Your task to perform on an android device: open a bookmark in the chrome app Image 0: 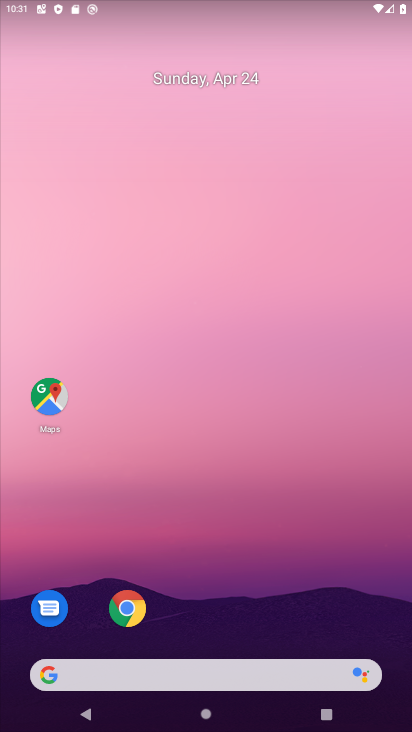
Step 0: drag from (264, 704) to (341, 169)
Your task to perform on an android device: open a bookmark in the chrome app Image 1: 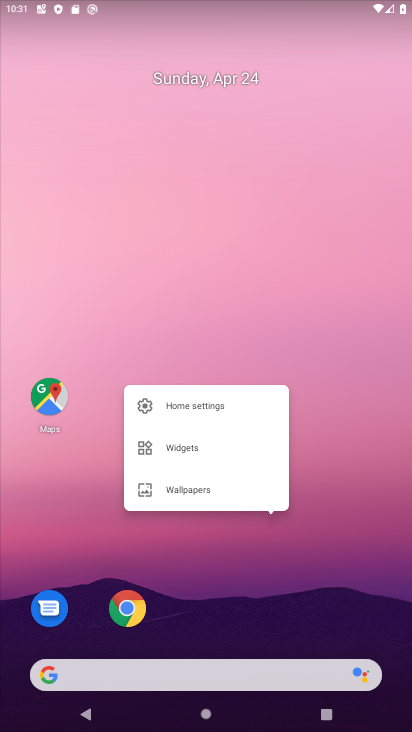
Step 1: click (341, 169)
Your task to perform on an android device: open a bookmark in the chrome app Image 2: 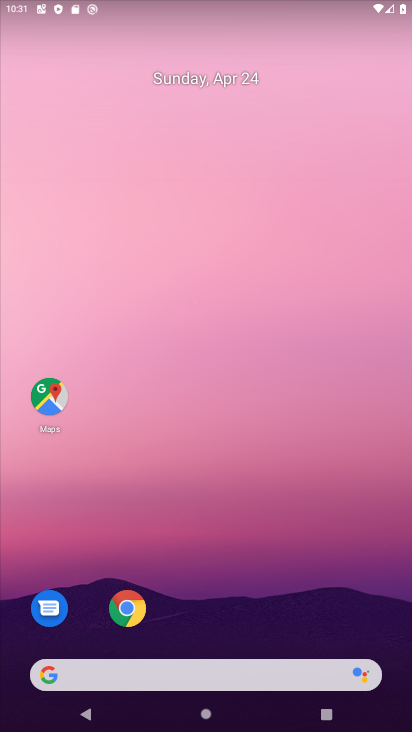
Step 2: drag from (246, 697) to (289, 126)
Your task to perform on an android device: open a bookmark in the chrome app Image 3: 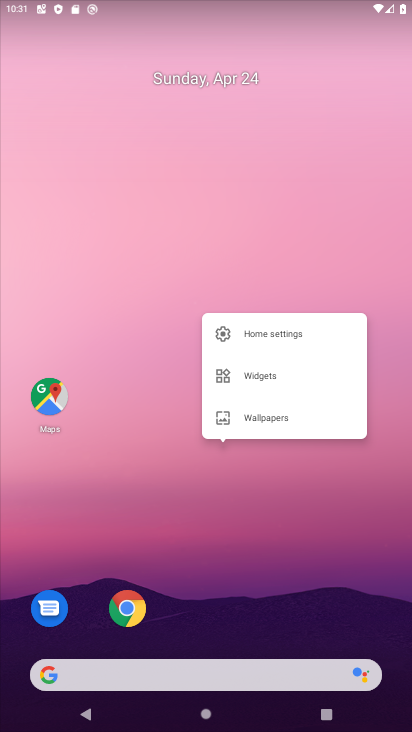
Step 3: click (235, 206)
Your task to perform on an android device: open a bookmark in the chrome app Image 4: 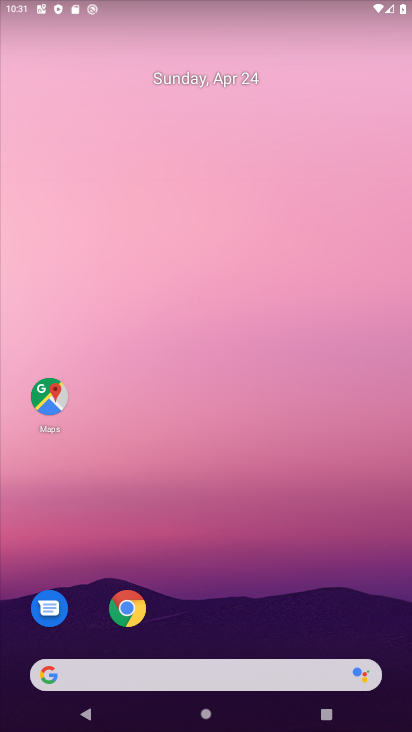
Step 4: drag from (274, 684) to (189, 149)
Your task to perform on an android device: open a bookmark in the chrome app Image 5: 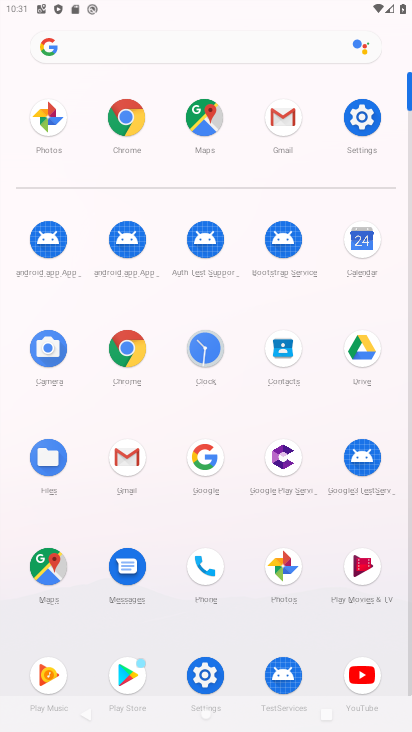
Step 5: click (141, 133)
Your task to perform on an android device: open a bookmark in the chrome app Image 6: 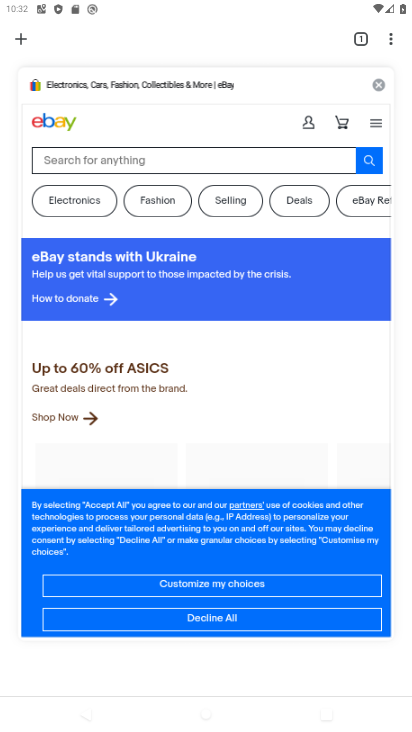
Step 6: click (394, 44)
Your task to perform on an android device: open a bookmark in the chrome app Image 7: 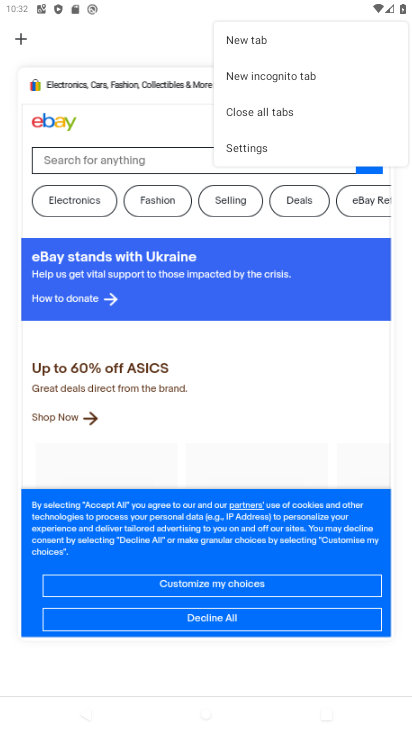
Step 7: click (265, 117)
Your task to perform on an android device: open a bookmark in the chrome app Image 8: 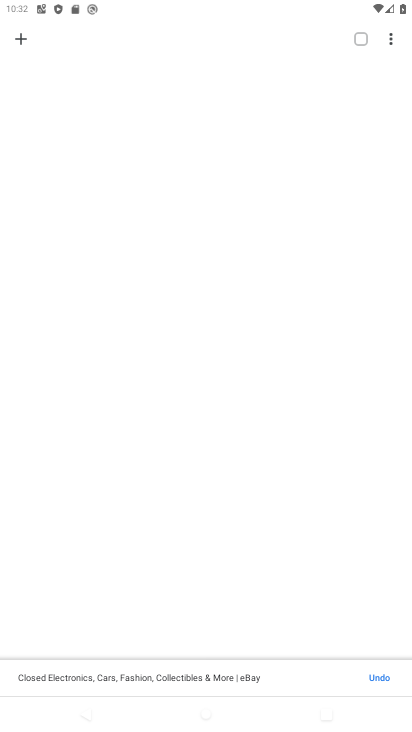
Step 8: click (26, 37)
Your task to perform on an android device: open a bookmark in the chrome app Image 9: 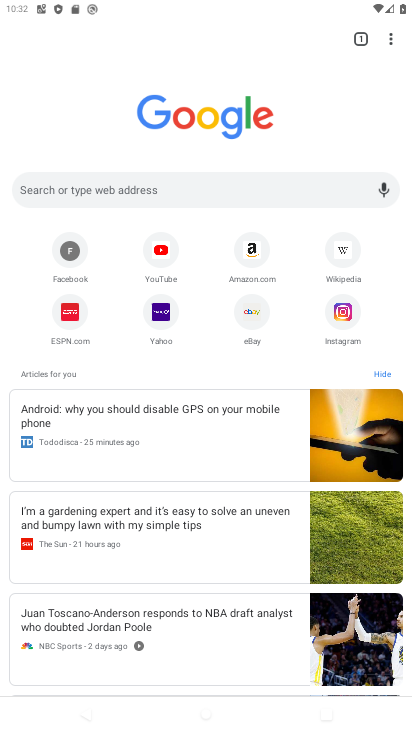
Step 9: click (392, 43)
Your task to perform on an android device: open a bookmark in the chrome app Image 10: 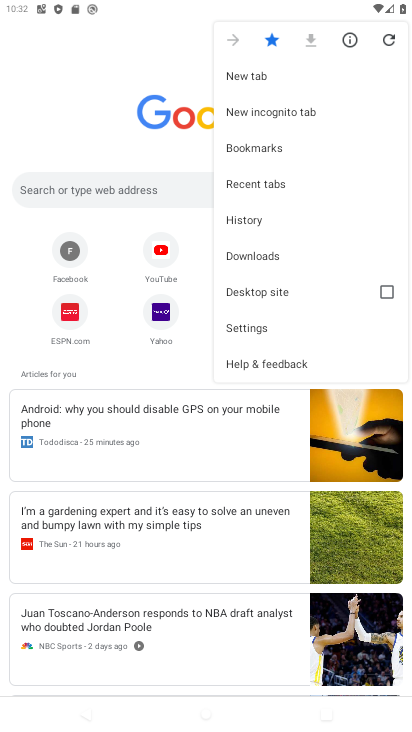
Step 10: click (255, 156)
Your task to perform on an android device: open a bookmark in the chrome app Image 11: 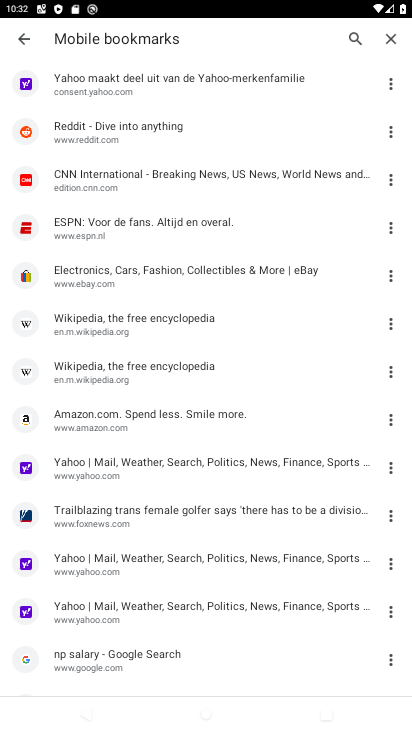
Step 11: click (213, 361)
Your task to perform on an android device: open a bookmark in the chrome app Image 12: 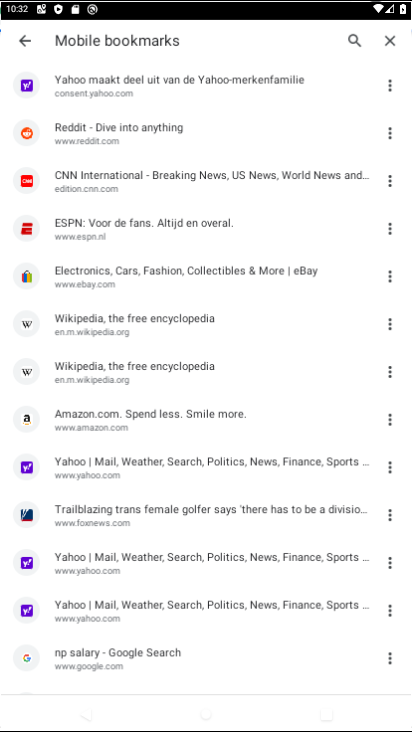
Step 12: task complete